Your task to perform on an android device: Open Chrome and go to the settings page Image 0: 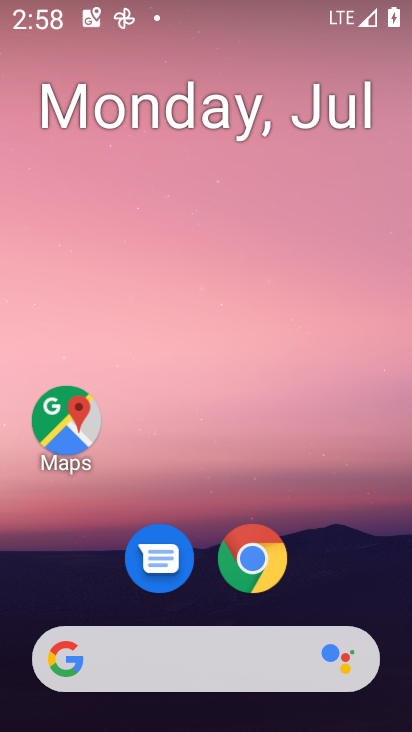
Step 0: press home button
Your task to perform on an android device: Open Chrome and go to the settings page Image 1: 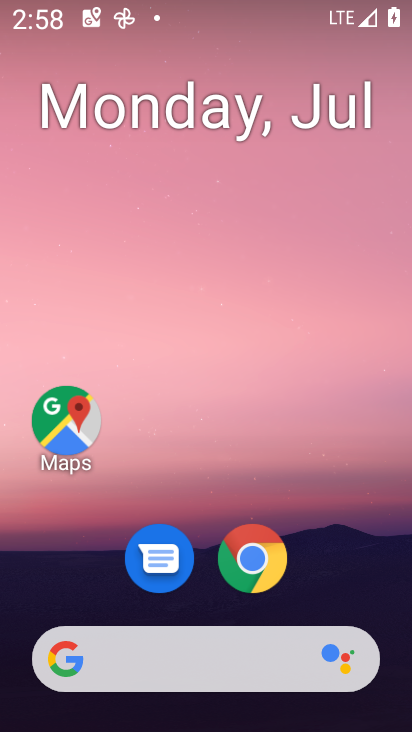
Step 1: drag from (352, 571) to (363, 167)
Your task to perform on an android device: Open Chrome and go to the settings page Image 2: 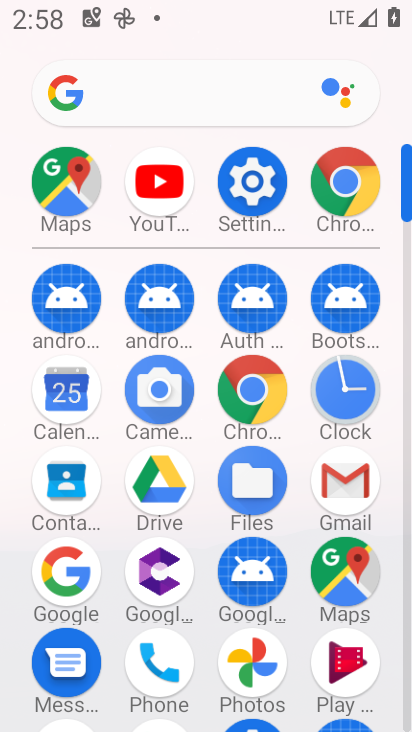
Step 2: click (250, 393)
Your task to perform on an android device: Open Chrome and go to the settings page Image 3: 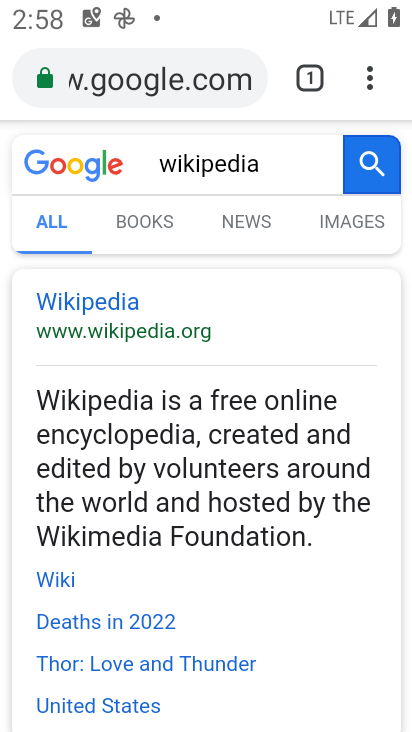
Step 3: click (371, 82)
Your task to perform on an android device: Open Chrome and go to the settings page Image 4: 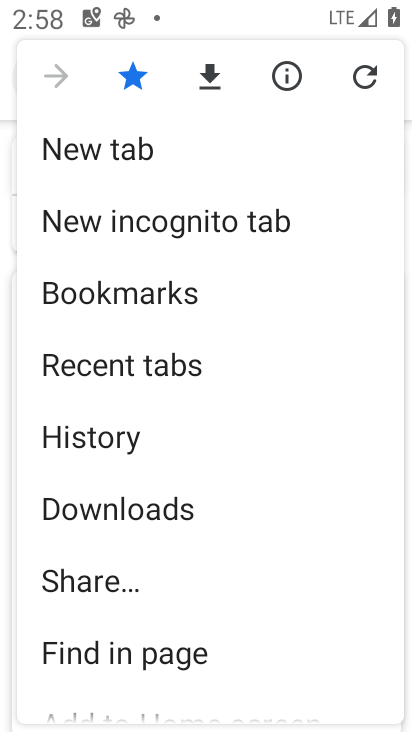
Step 4: drag from (336, 405) to (344, 319)
Your task to perform on an android device: Open Chrome and go to the settings page Image 5: 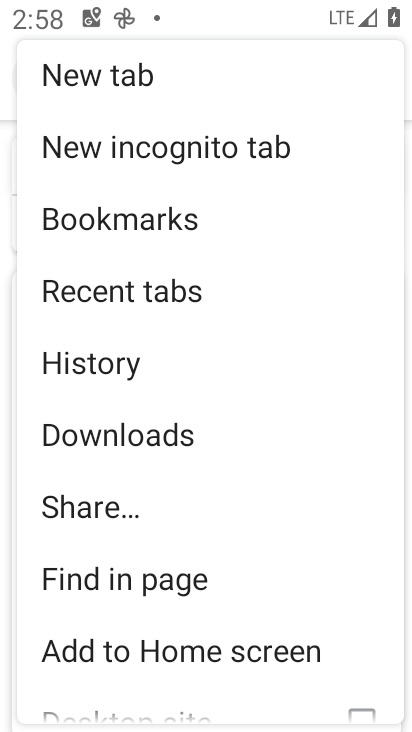
Step 5: drag from (296, 511) to (295, 399)
Your task to perform on an android device: Open Chrome and go to the settings page Image 6: 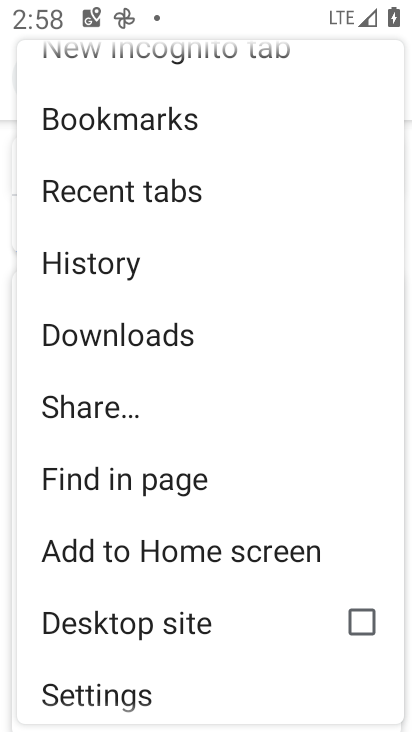
Step 6: drag from (275, 593) to (281, 468)
Your task to perform on an android device: Open Chrome and go to the settings page Image 7: 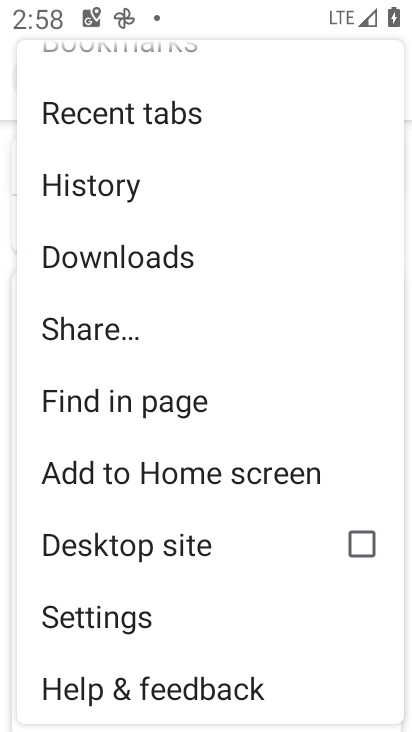
Step 7: click (209, 617)
Your task to perform on an android device: Open Chrome and go to the settings page Image 8: 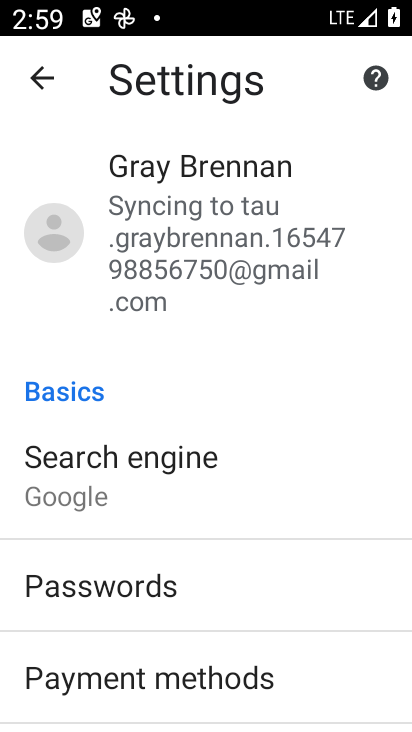
Step 8: task complete